Your task to perform on an android device: turn on priority inbox in the gmail app Image 0: 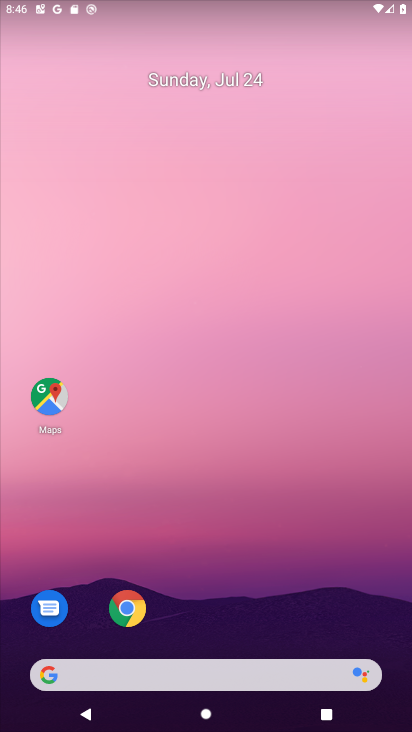
Step 0: click (198, 352)
Your task to perform on an android device: turn on priority inbox in the gmail app Image 1: 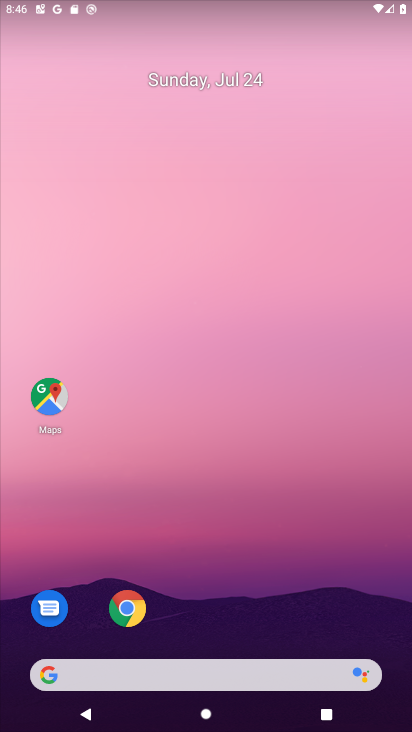
Step 1: drag from (195, 616) to (191, 130)
Your task to perform on an android device: turn on priority inbox in the gmail app Image 2: 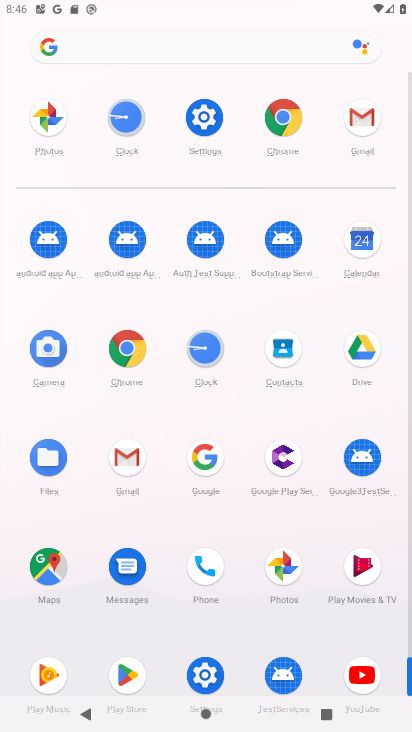
Step 2: click (354, 112)
Your task to perform on an android device: turn on priority inbox in the gmail app Image 3: 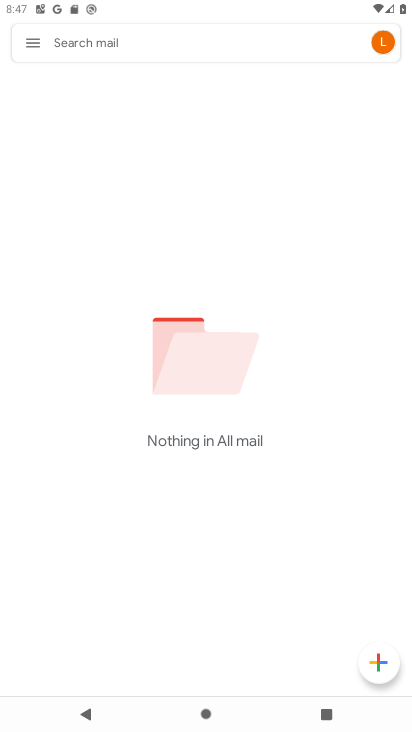
Step 3: click (43, 46)
Your task to perform on an android device: turn on priority inbox in the gmail app Image 4: 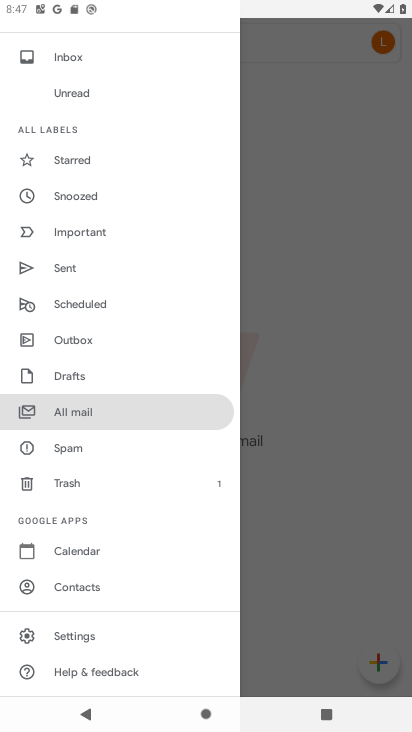
Step 4: click (125, 635)
Your task to perform on an android device: turn on priority inbox in the gmail app Image 5: 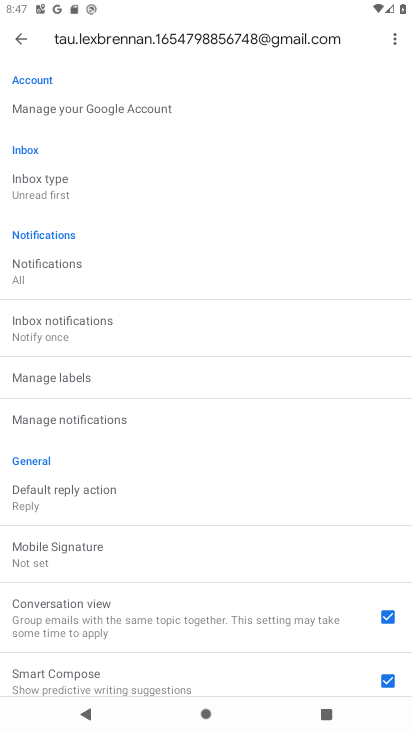
Step 5: click (87, 175)
Your task to perform on an android device: turn on priority inbox in the gmail app Image 6: 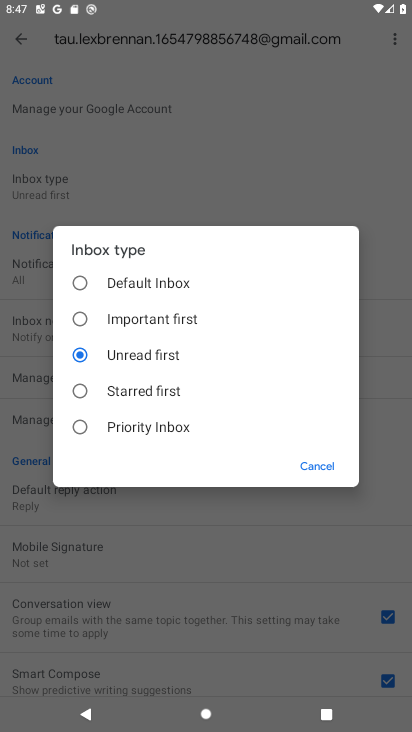
Step 6: click (90, 434)
Your task to perform on an android device: turn on priority inbox in the gmail app Image 7: 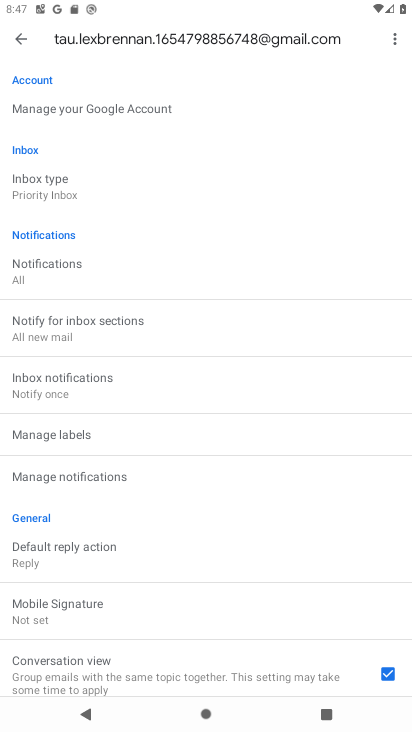
Step 7: task complete